Your task to perform on an android device: Go to settings Image 0: 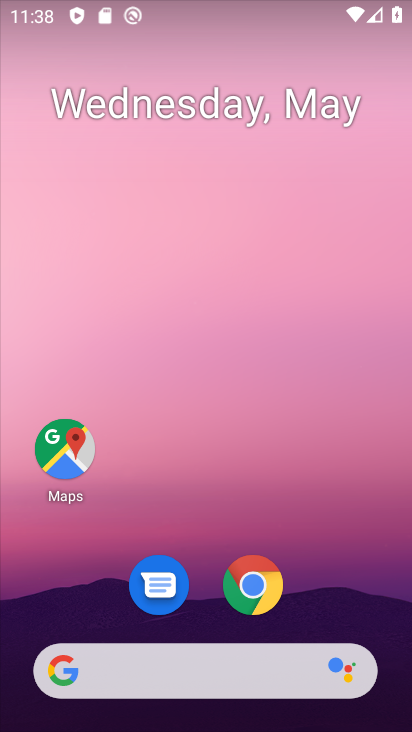
Step 0: drag from (214, 505) to (221, 56)
Your task to perform on an android device: Go to settings Image 1: 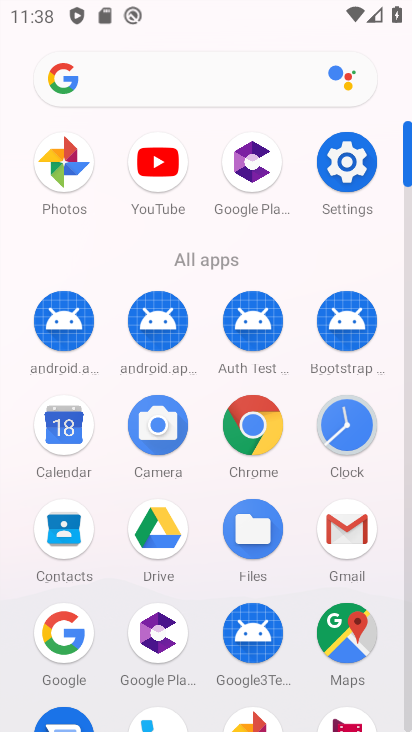
Step 1: click (342, 168)
Your task to perform on an android device: Go to settings Image 2: 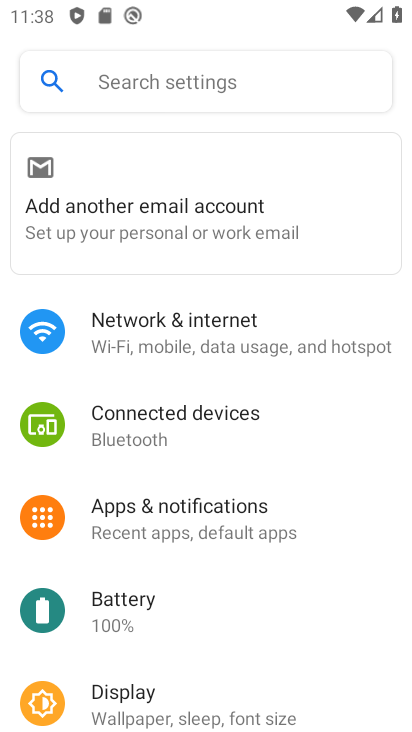
Step 2: task complete